Your task to perform on an android device: Is it going to rain tomorrow? Image 0: 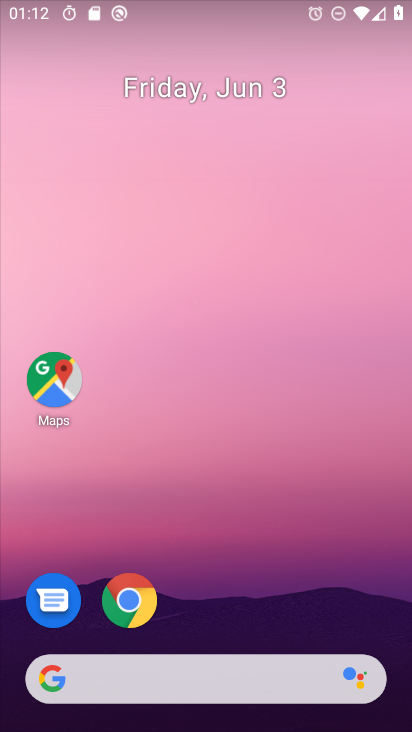
Step 0: drag from (270, 576) to (325, 102)
Your task to perform on an android device: Is it going to rain tomorrow? Image 1: 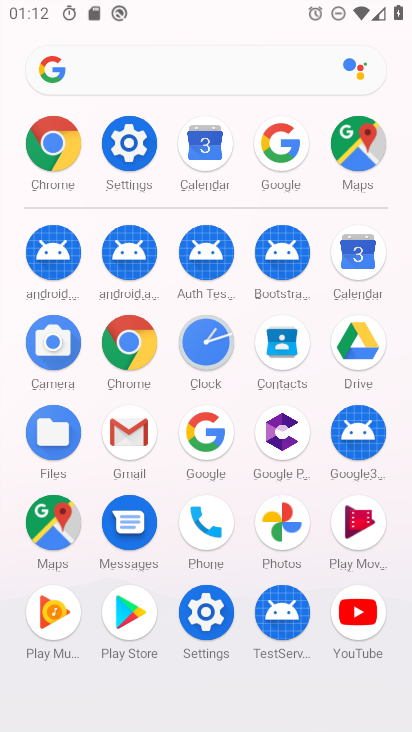
Step 1: click (204, 437)
Your task to perform on an android device: Is it going to rain tomorrow? Image 2: 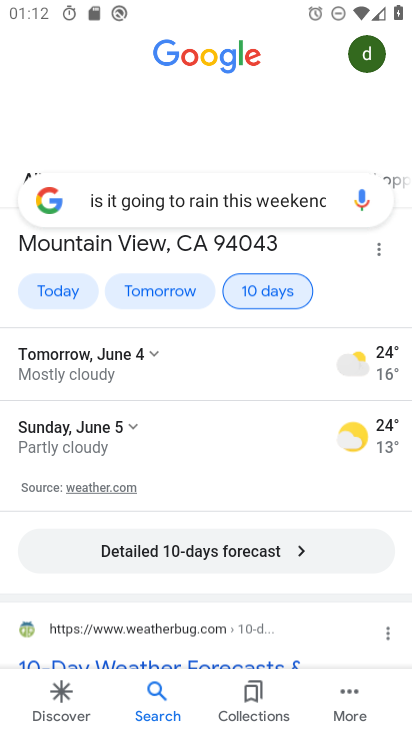
Step 2: click (299, 202)
Your task to perform on an android device: Is it going to rain tomorrow? Image 3: 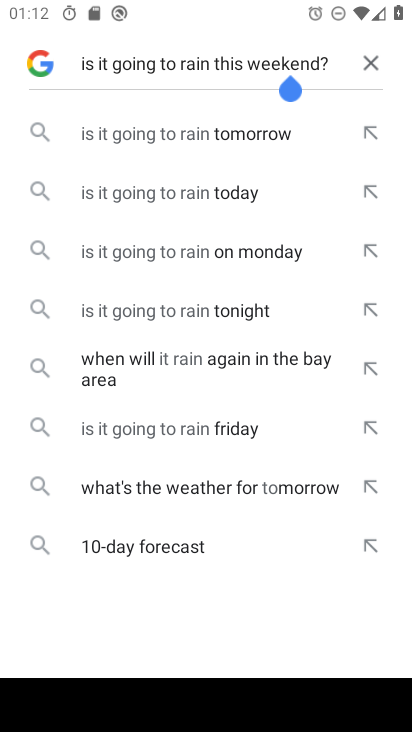
Step 3: click (209, 136)
Your task to perform on an android device: Is it going to rain tomorrow? Image 4: 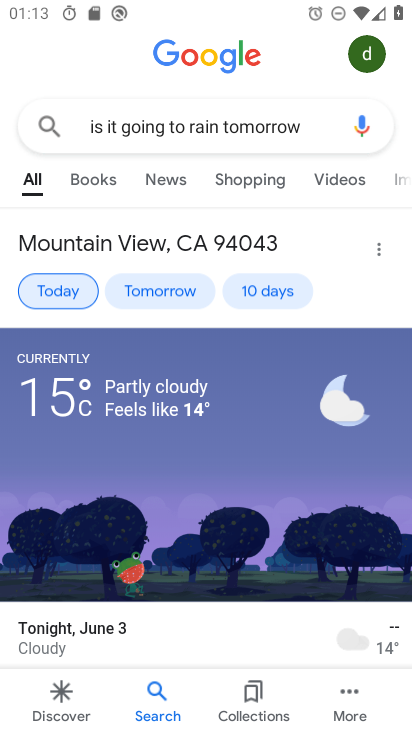
Step 4: task complete